Your task to perform on an android device: open chrome and create a bookmark for the current page Image 0: 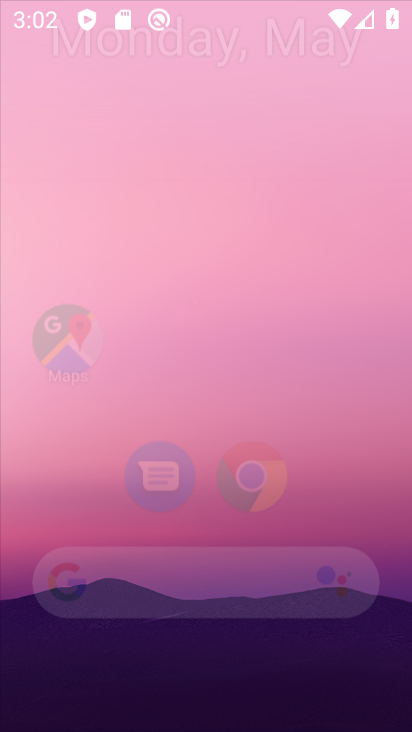
Step 0: drag from (391, 298) to (406, 154)
Your task to perform on an android device: open chrome and create a bookmark for the current page Image 1: 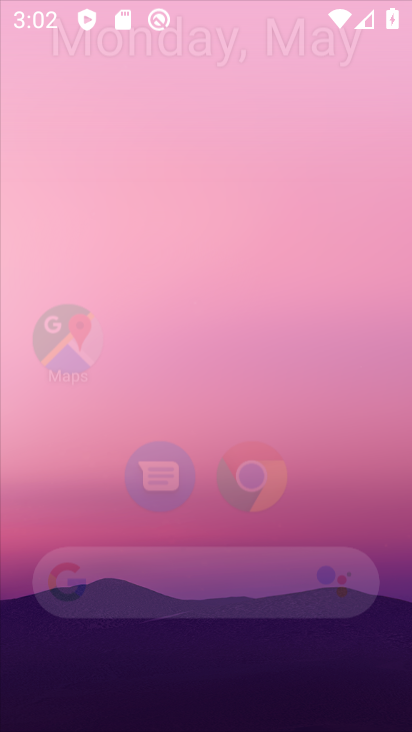
Step 1: drag from (312, 490) to (380, 36)
Your task to perform on an android device: open chrome and create a bookmark for the current page Image 2: 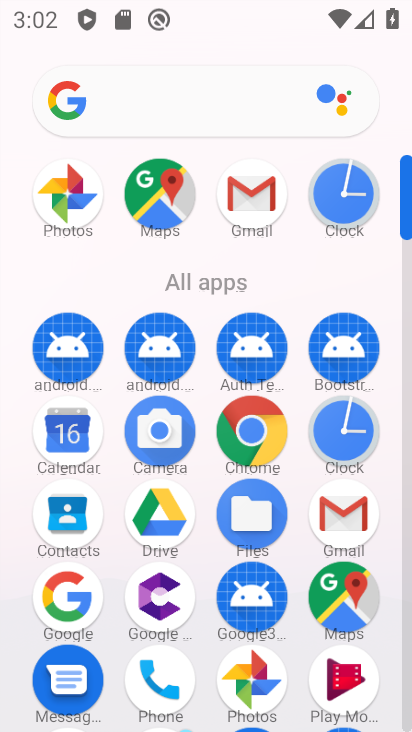
Step 2: drag from (319, 290) to (312, 145)
Your task to perform on an android device: open chrome and create a bookmark for the current page Image 3: 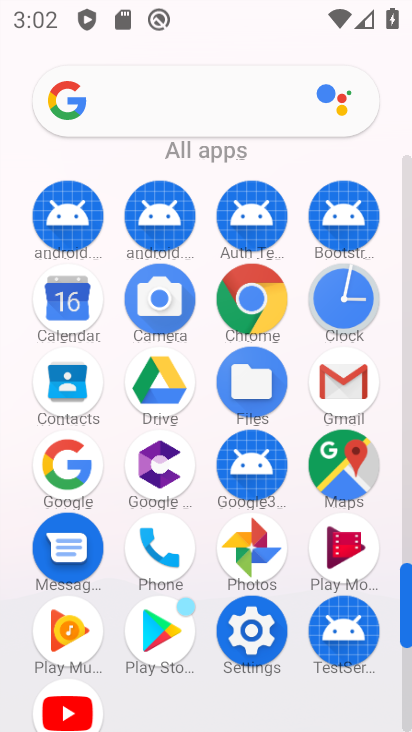
Step 3: click (253, 319)
Your task to perform on an android device: open chrome and create a bookmark for the current page Image 4: 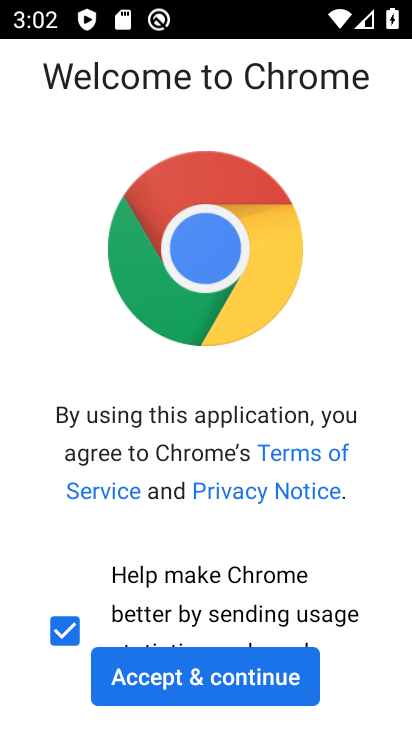
Step 4: click (223, 661)
Your task to perform on an android device: open chrome and create a bookmark for the current page Image 5: 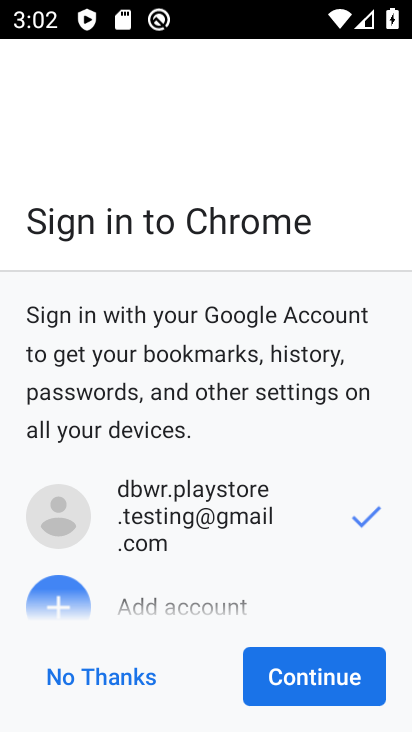
Step 5: click (298, 673)
Your task to perform on an android device: open chrome and create a bookmark for the current page Image 6: 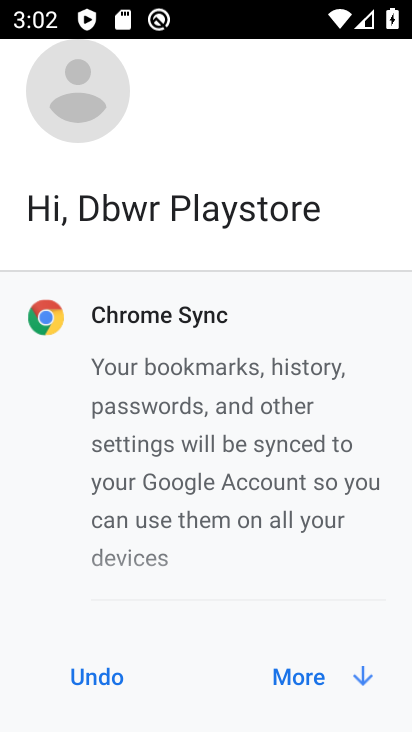
Step 6: click (304, 683)
Your task to perform on an android device: open chrome and create a bookmark for the current page Image 7: 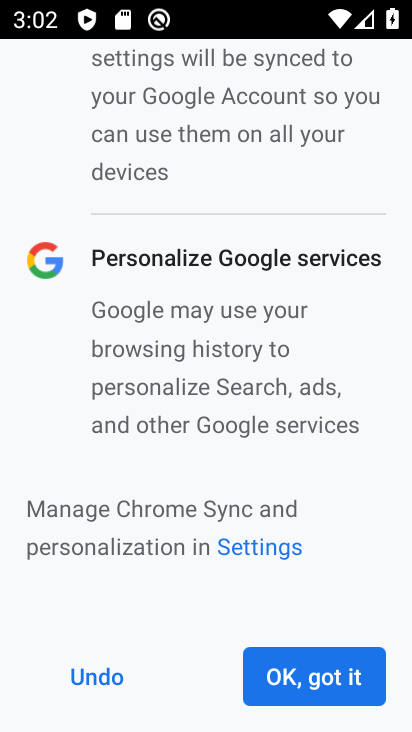
Step 7: click (304, 683)
Your task to perform on an android device: open chrome and create a bookmark for the current page Image 8: 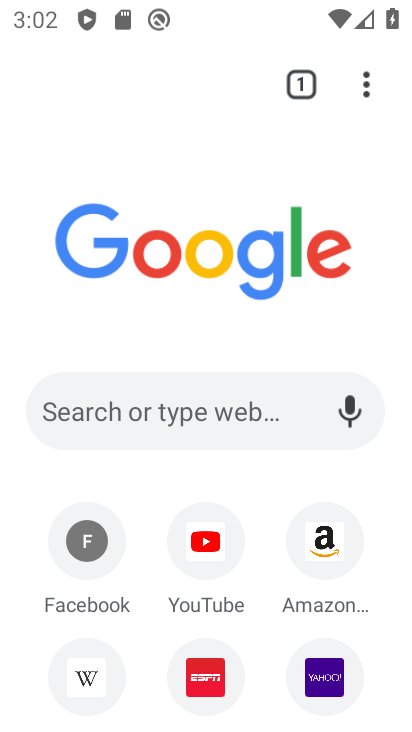
Step 8: task complete